Your task to perform on an android device: Go to sound settings Image 0: 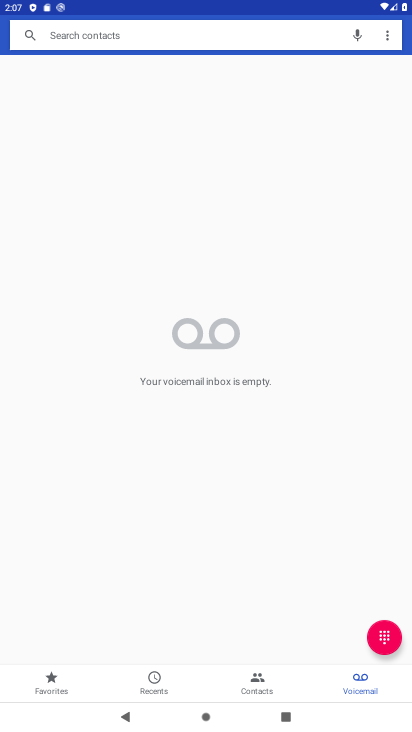
Step 0: press home button
Your task to perform on an android device: Go to sound settings Image 1: 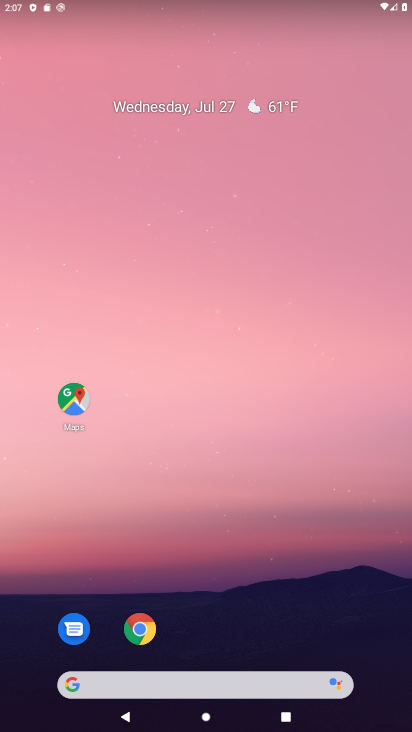
Step 1: drag from (179, 683) to (278, 1)
Your task to perform on an android device: Go to sound settings Image 2: 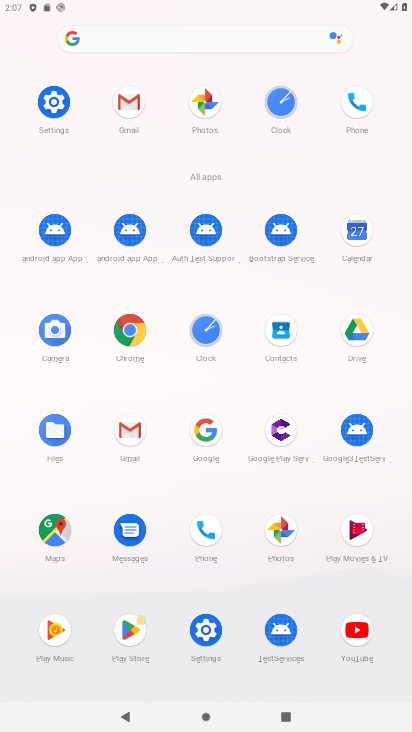
Step 2: click (51, 98)
Your task to perform on an android device: Go to sound settings Image 3: 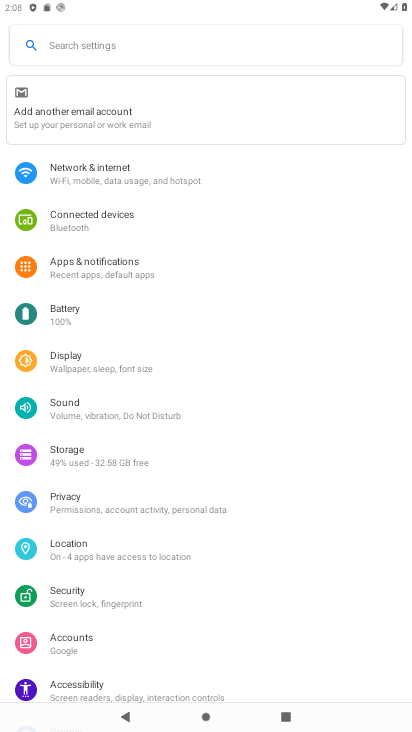
Step 3: click (74, 411)
Your task to perform on an android device: Go to sound settings Image 4: 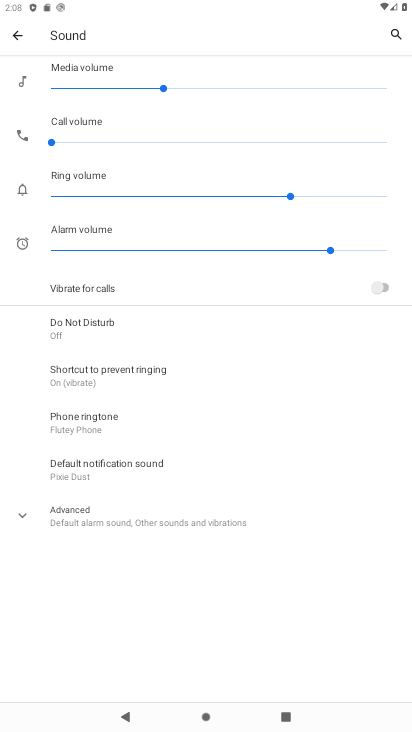
Step 4: task complete